Your task to perform on an android device: open app "Grab" (install if not already installed) Image 0: 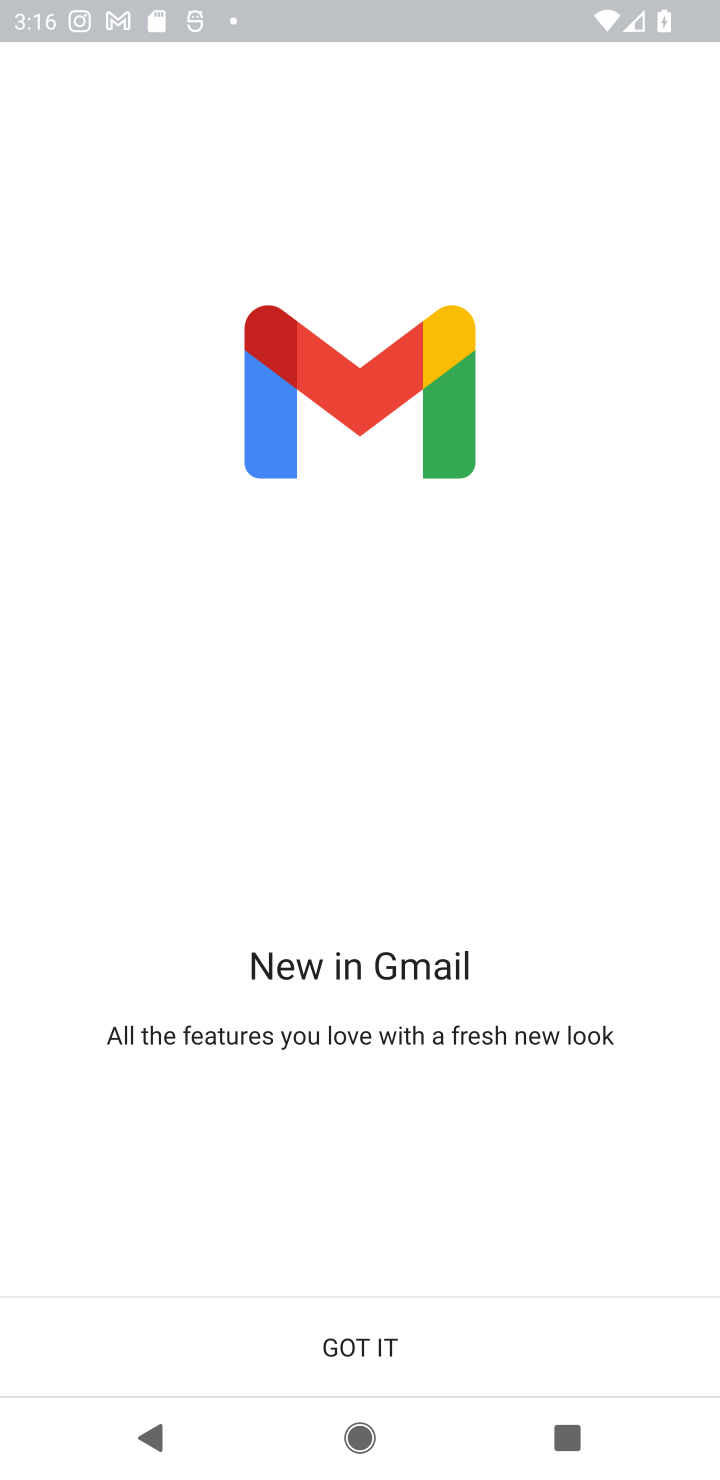
Step 0: press home button
Your task to perform on an android device: open app "Grab" (install if not already installed) Image 1: 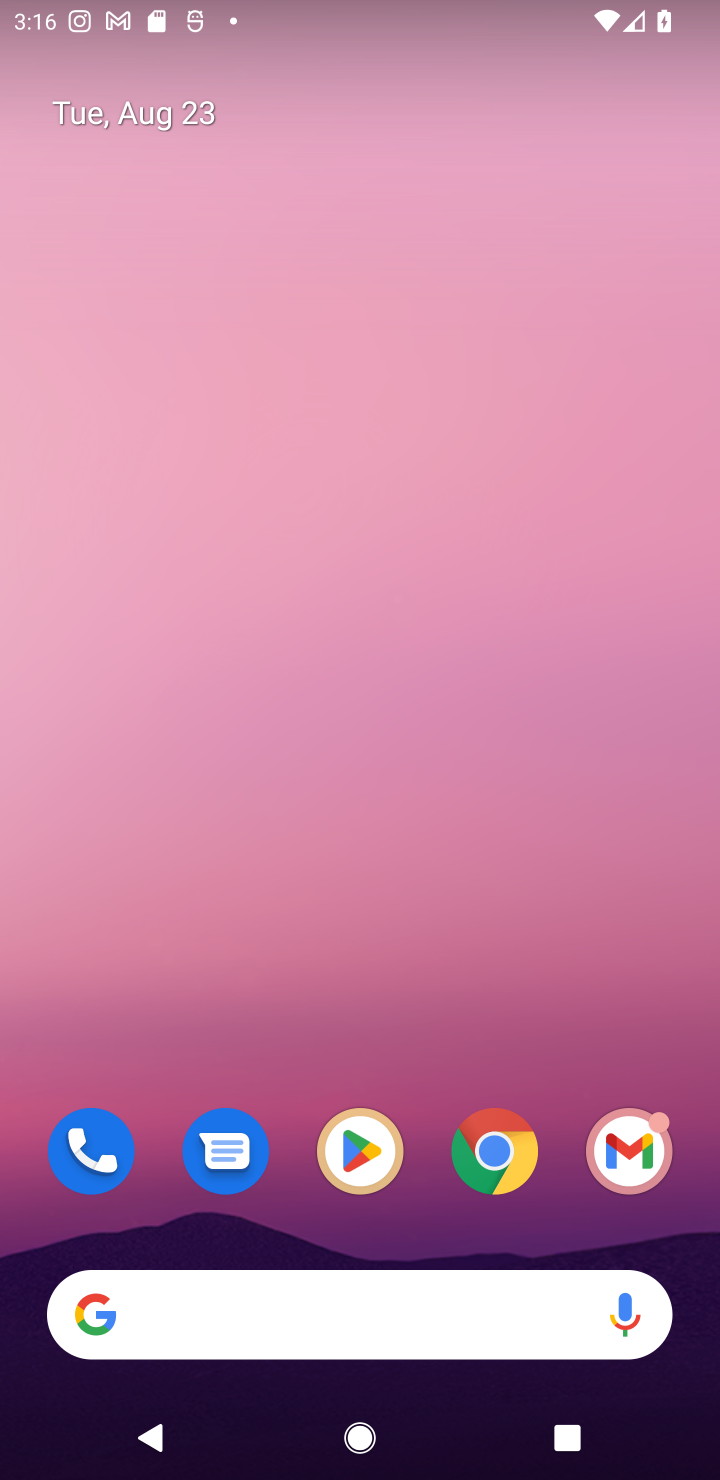
Step 1: click (374, 1148)
Your task to perform on an android device: open app "Grab" (install if not already installed) Image 2: 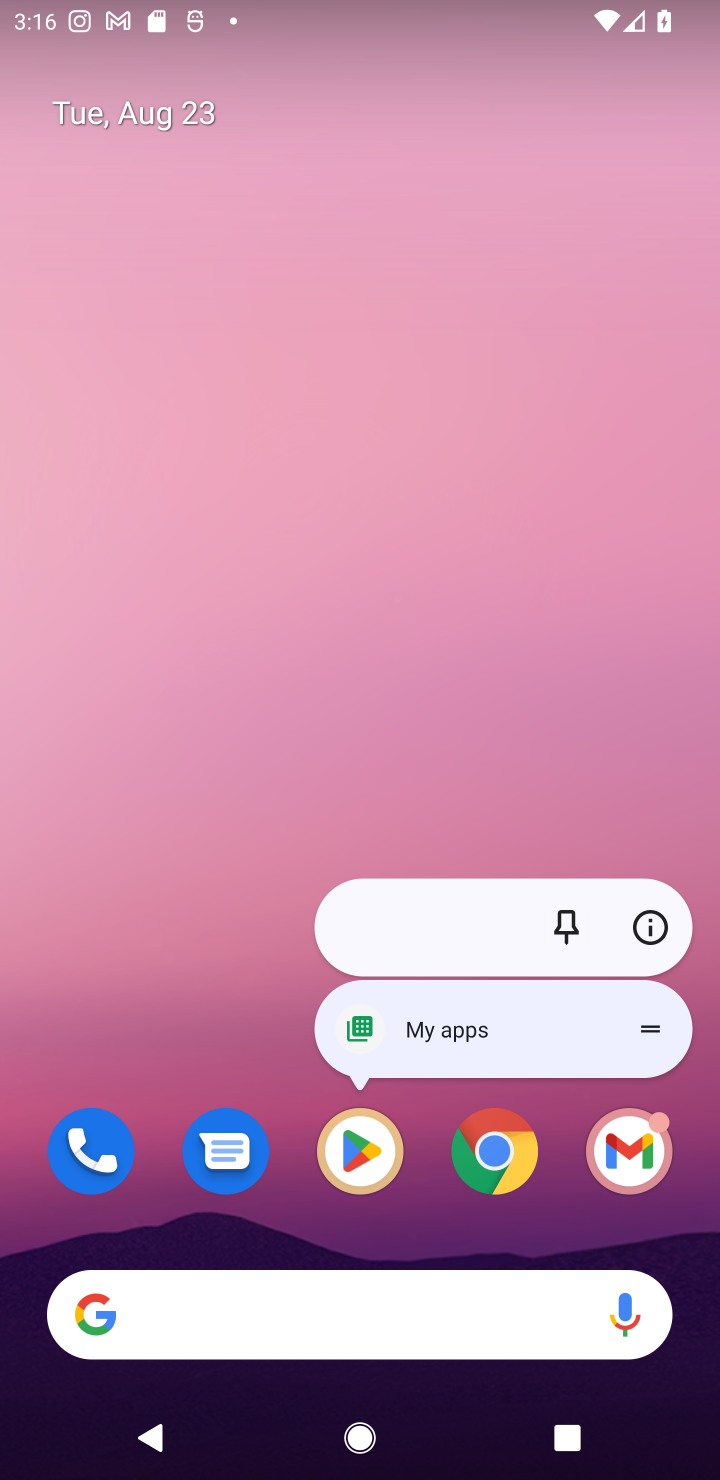
Step 2: click (374, 1148)
Your task to perform on an android device: open app "Grab" (install if not already installed) Image 3: 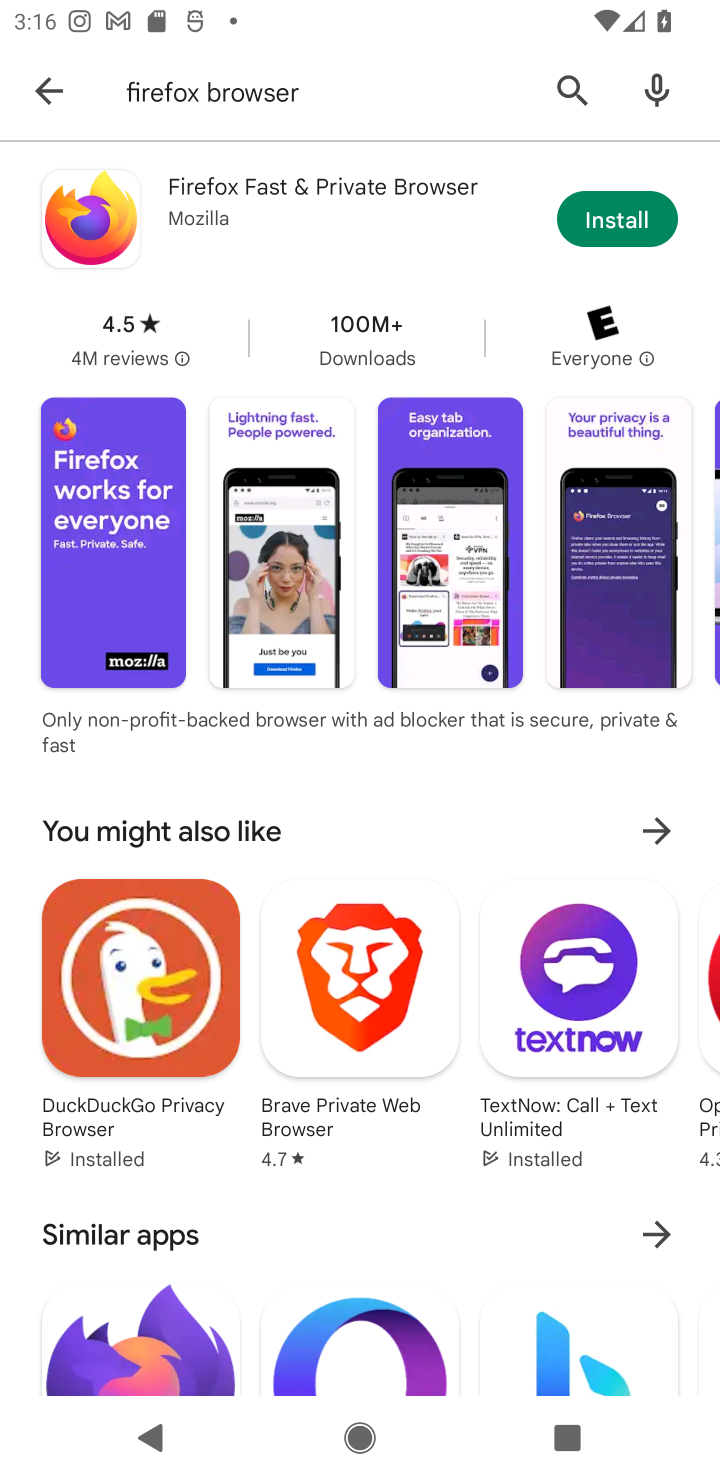
Step 3: click (574, 81)
Your task to perform on an android device: open app "Grab" (install if not already installed) Image 4: 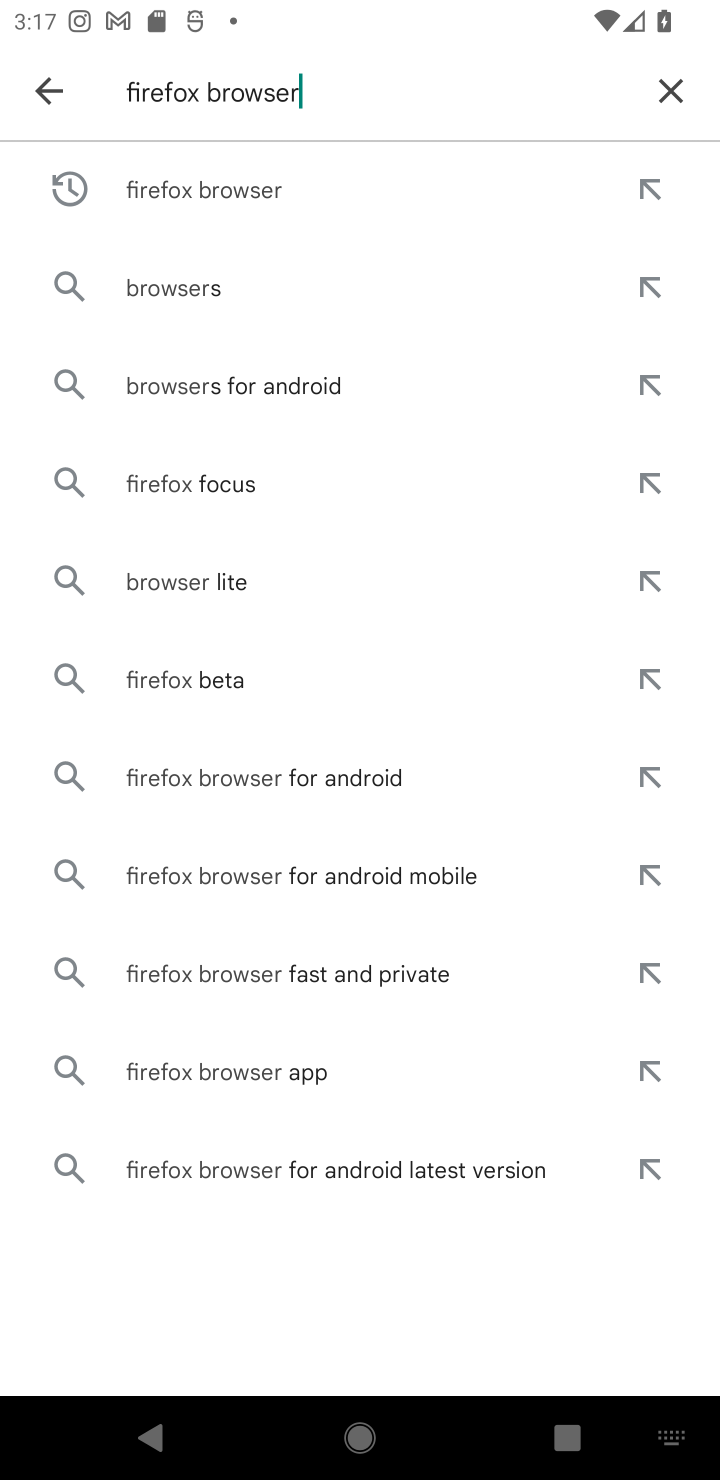
Step 4: click (661, 83)
Your task to perform on an android device: open app "Grab" (install if not already installed) Image 5: 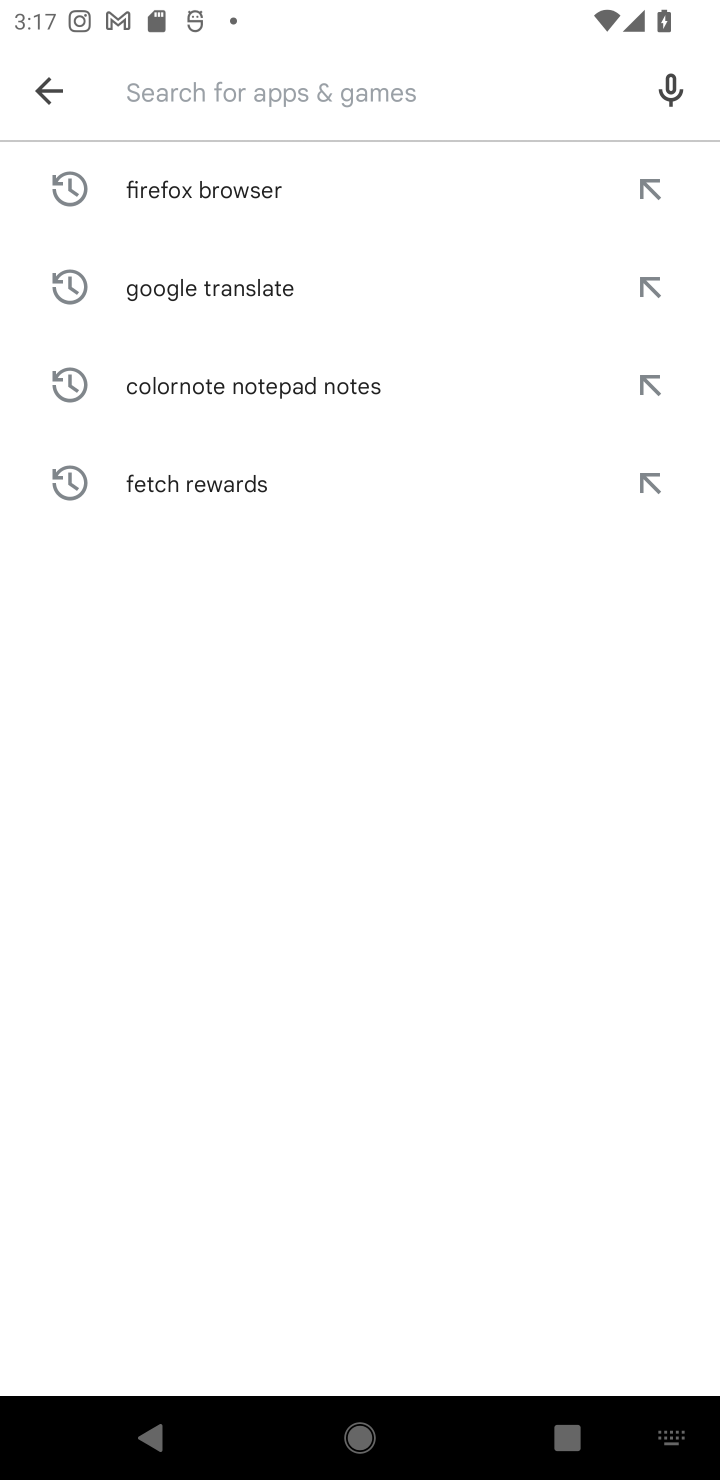
Step 5: type "Grab"
Your task to perform on an android device: open app "Grab" (install if not already installed) Image 6: 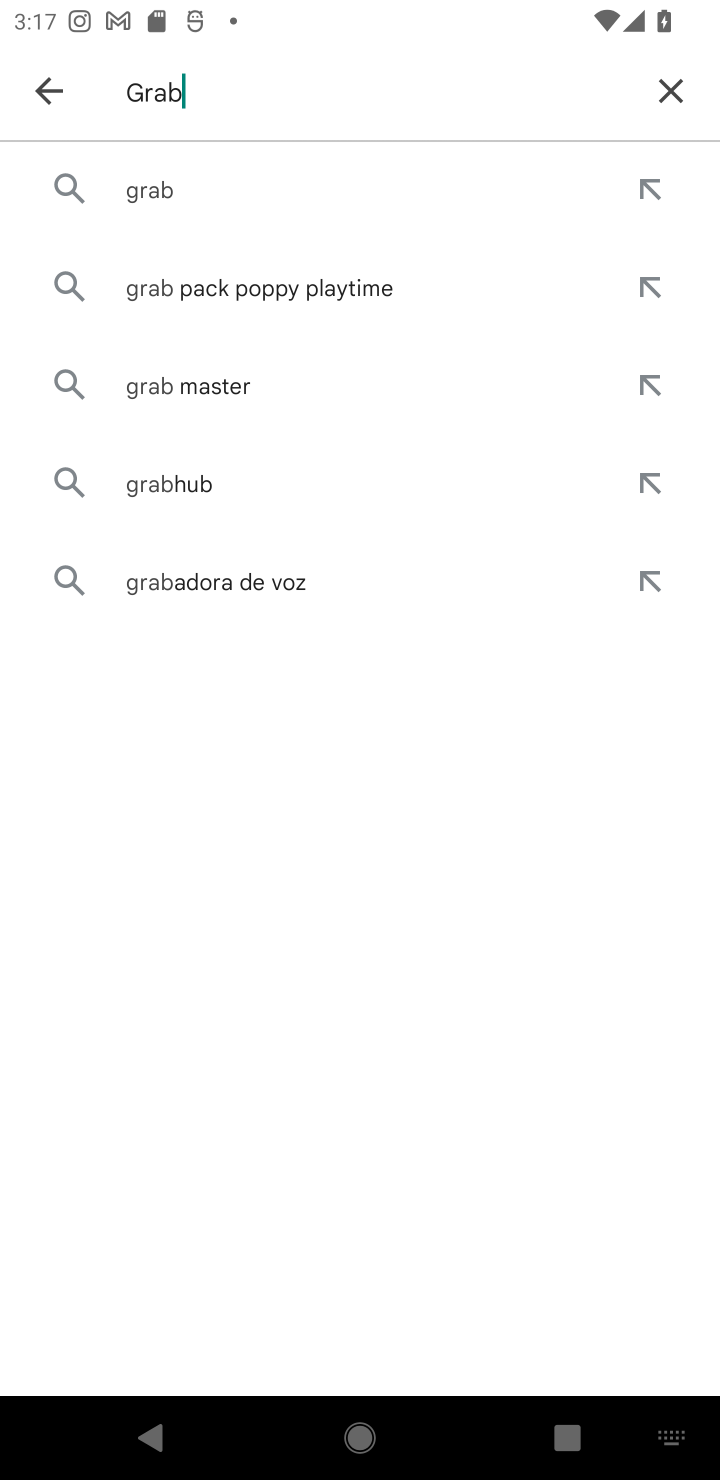
Step 6: click (172, 166)
Your task to perform on an android device: open app "Grab" (install if not already installed) Image 7: 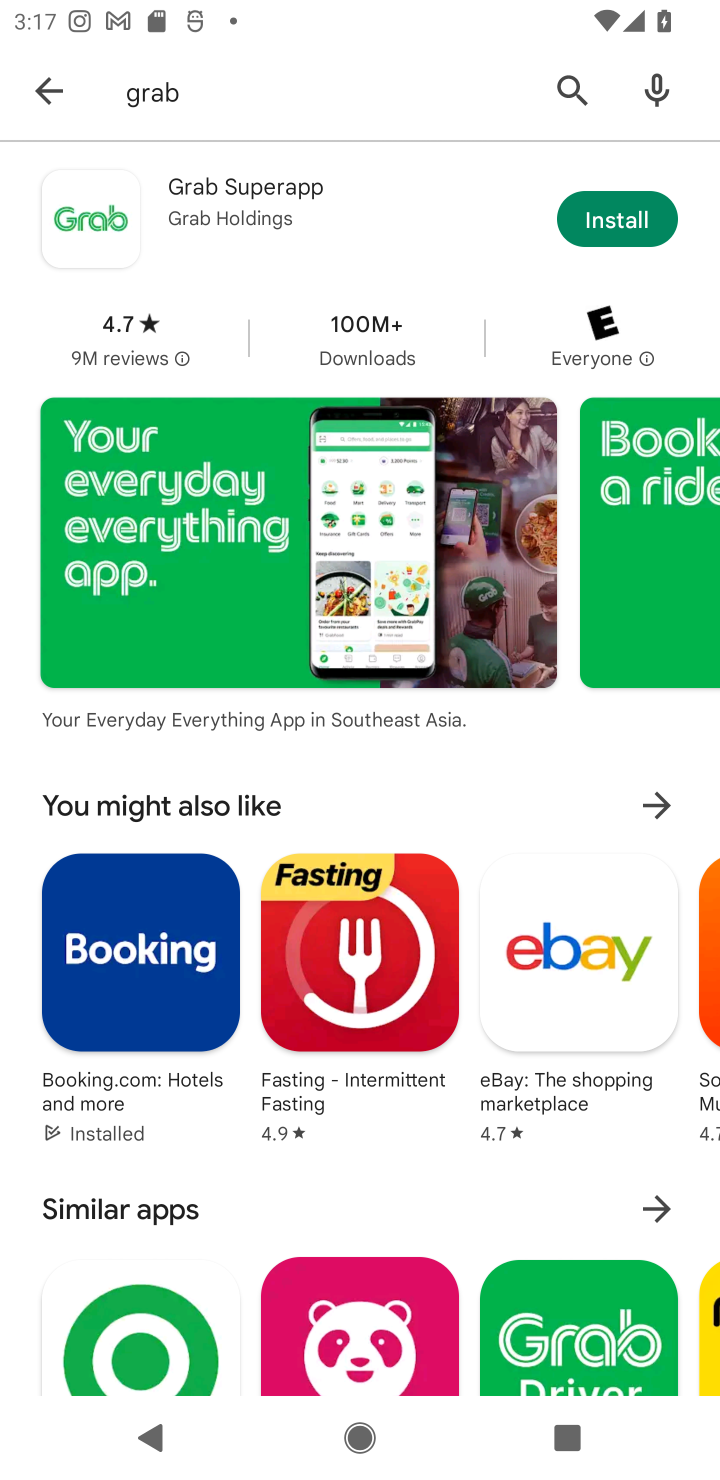
Step 7: click (604, 213)
Your task to perform on an android device: open app "Grab" (install if not already installed) Image 8: 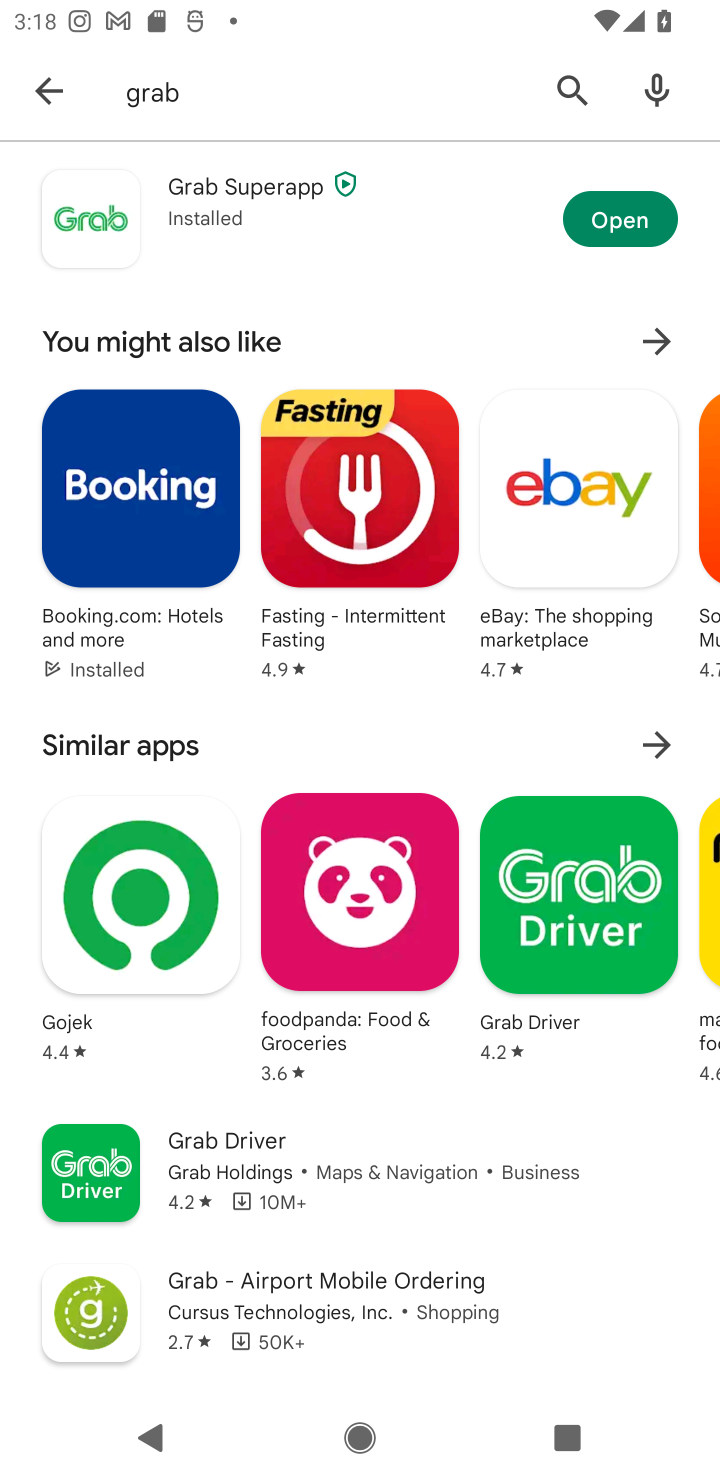
Step 8: click (617, 218)
Your task to perform on an android device: open app "Grab" (install if not already installed) Image 9: 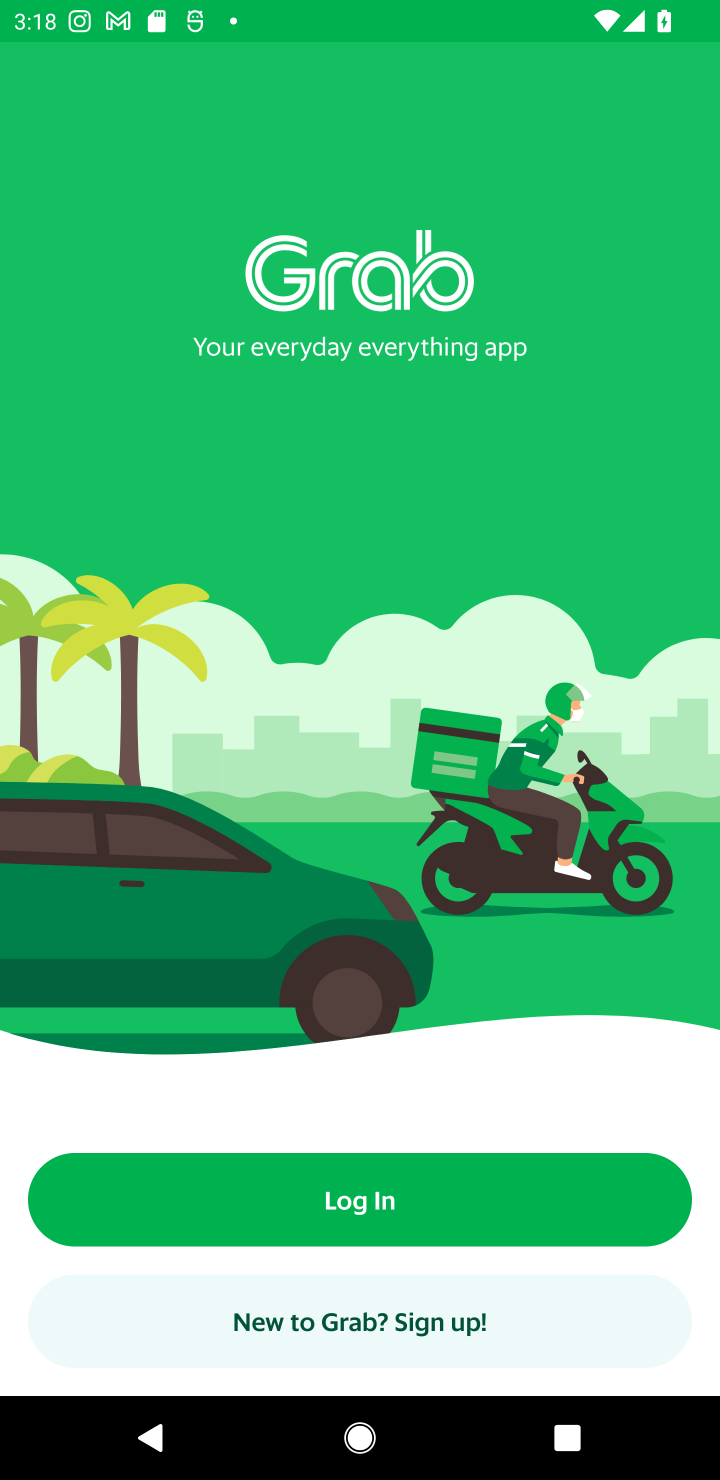
Step 9: task complete